Your task to perform on an android device: Do I have any events this weekend? Image 0: 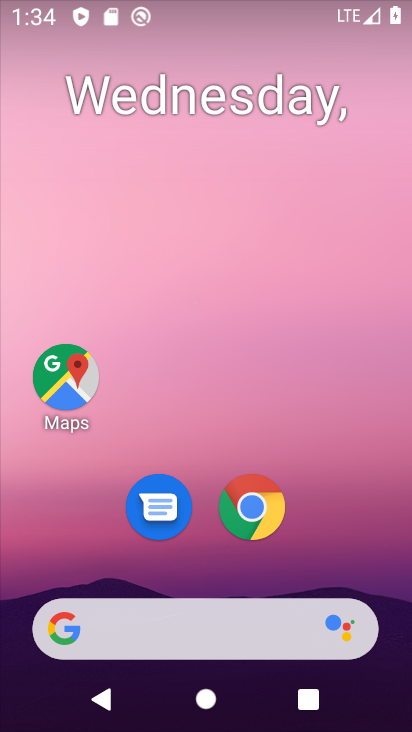
Step 0: drag from (361, 555) to (256, 95)
Your task to perform on an android device: Do I have any events this weekend? Image 1: 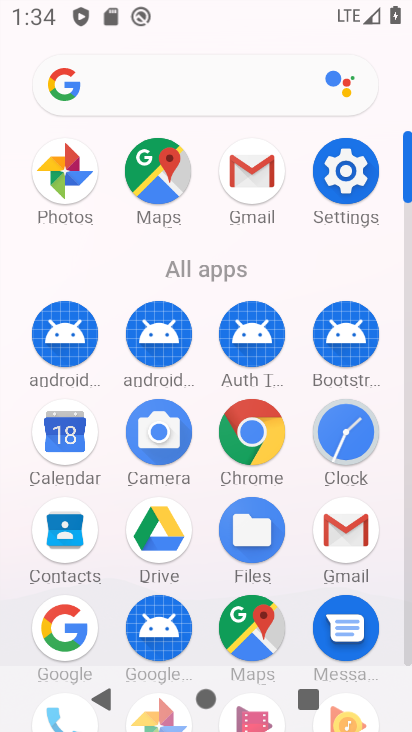
Step 1: click (76, 436)
Your task to perform on an android device: Do I have any events this weekend? Image 2: 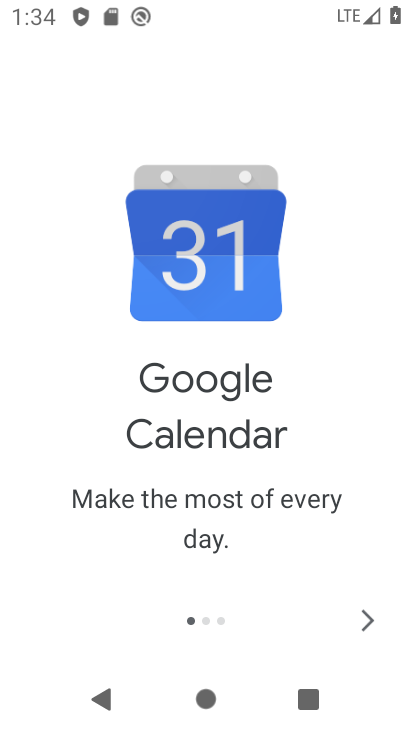
Step 2: click (374, 618)
Your task to perform on an android device: Do I have any events this weekend? Image 3: 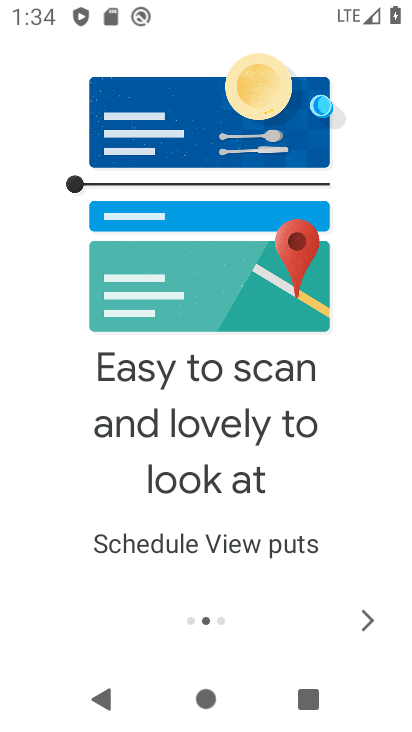
Step 3: click (374, 618)
Your task to perform on an android device: Do I have any events this weekend? Image 4: 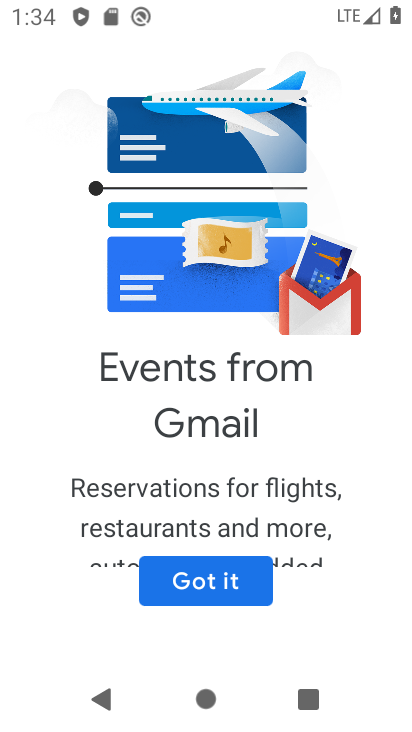
Step 4: click (179, 582)
Your task to perform on an android device: Do I have any events this weekend? Image 5: 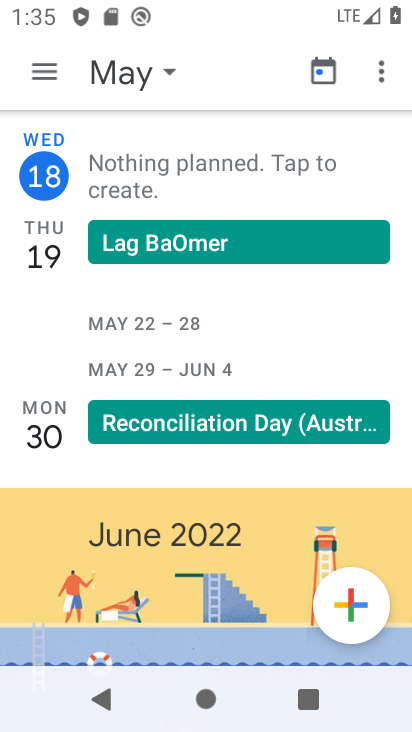
Step 5: click (51, 74)
Your task to perform on an android device: Do I have any events this weekend? Image 6: 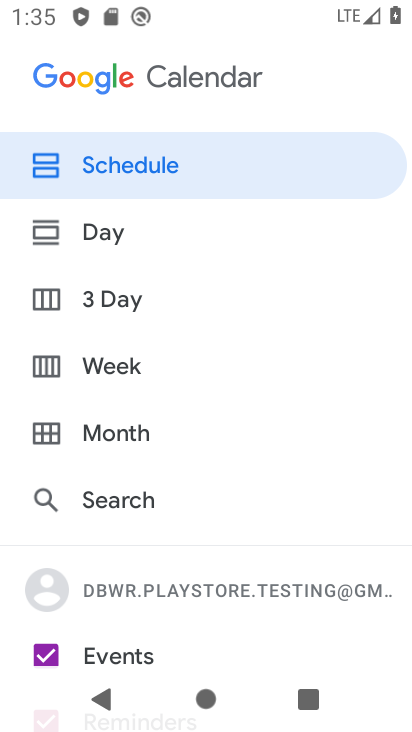
Step 6: drag from (215, 578) to (252, 6)
Your task to perform on an android device: Do I have any events this weekend? Image 7: 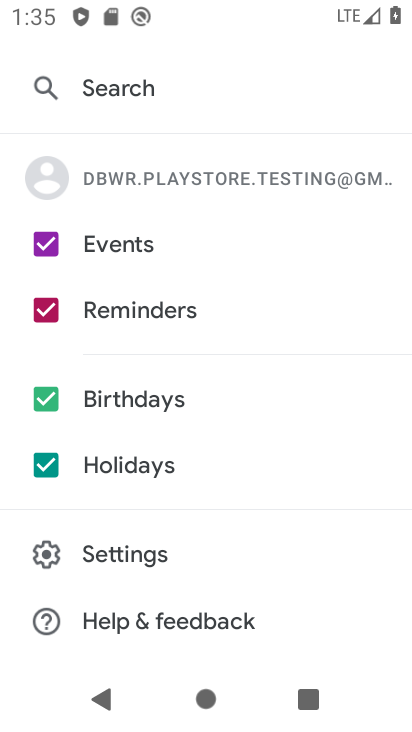
Step 7: click (43, 460)
Your task to perform on an android device: Do I have any events this weekend? Image 8: 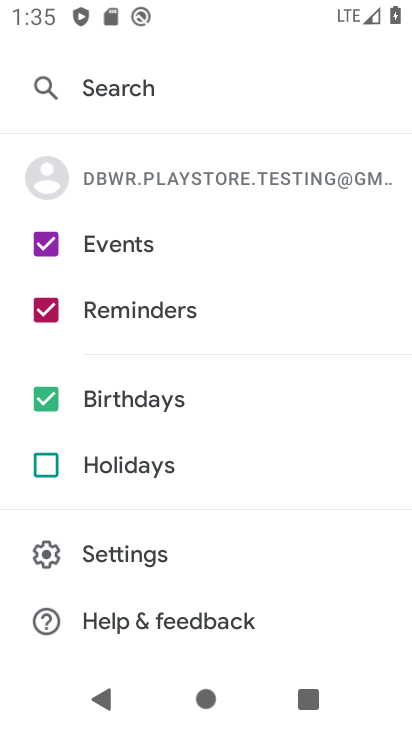
Step 8: click (39, 402)
Your task to perform on an android device: Do I have any events this weekend? Image 9: 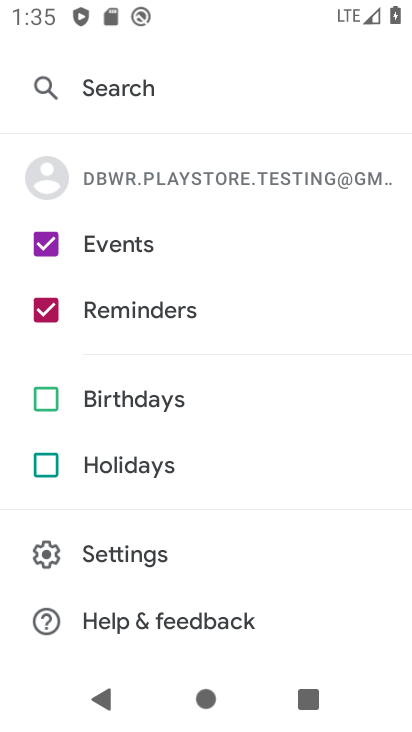
Step 9: click (44, 313)
Your task to perform on an android device: Do I have any events this weekend? Image 10: 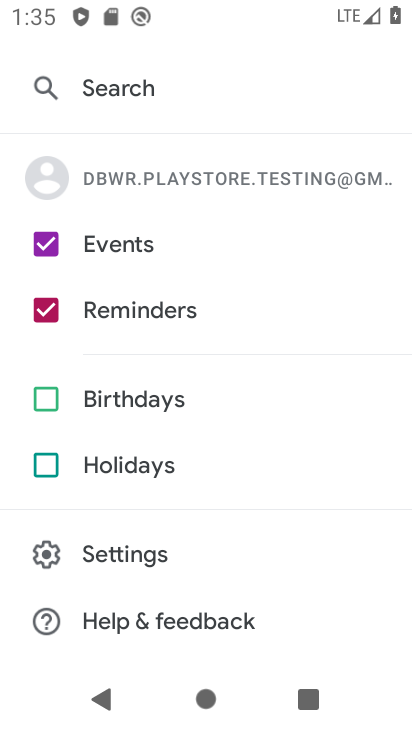
Step 10: drag from (233, 129) to (238, 251)
Your task to perform on an android device: Do I have any events this weekend? Image 11: 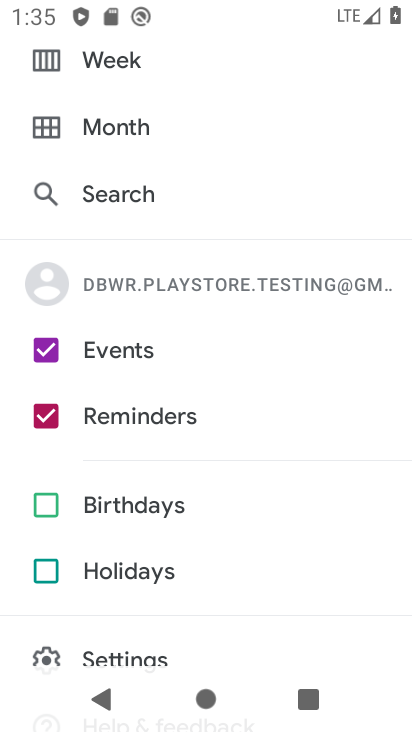
Step 11: click (47, 425)
Your task to perform on an android device: Do I have any events this weekend? Image 12: 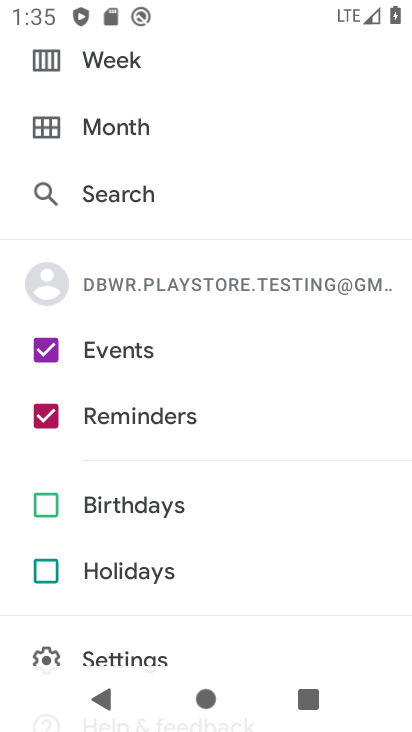
Step 12: click (47, 425)
Your task to perform on an android device: Do I have any events this weekend? Image 13: 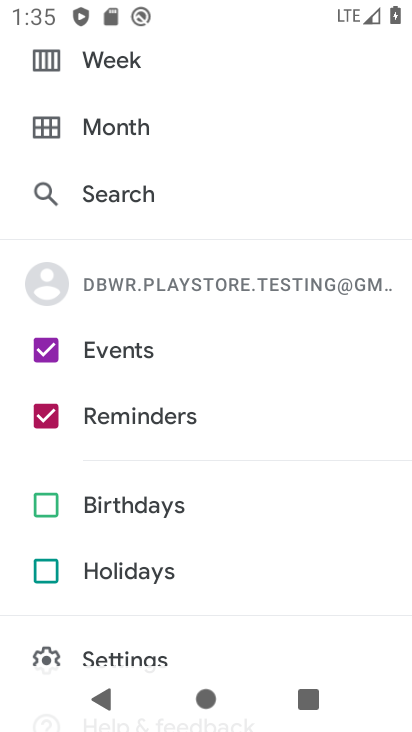
Step 13: click (42, 408)
Your task to perform on an android device: Do I have any events this weekend? Image 14: 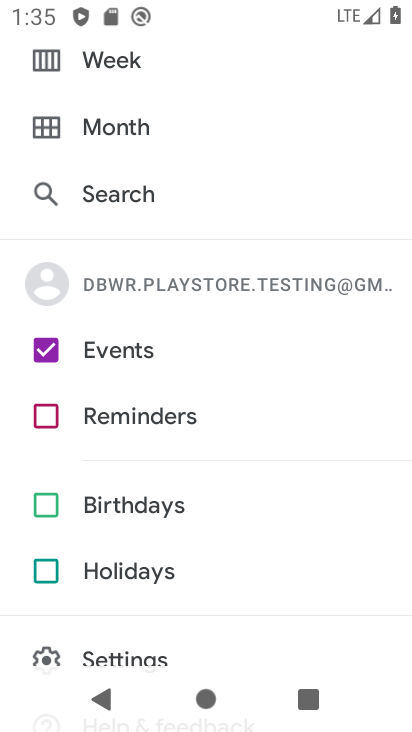
Step 14: drag from (201, 135) to (191, 335)
Your task to perform on an android device: Do I have any events this weekend? Image 15: 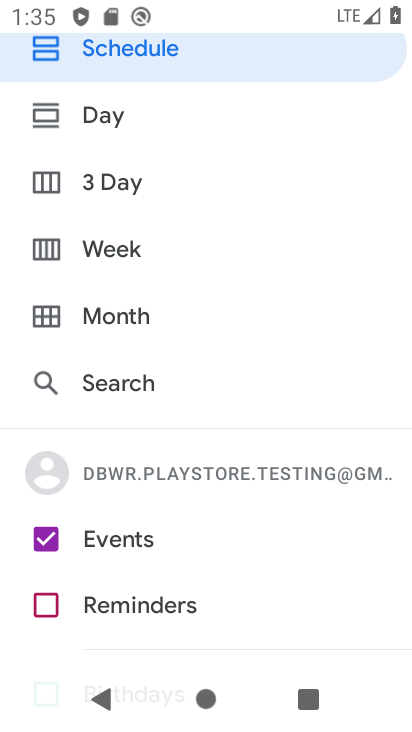
Step 15: click (119, 184)
Your task to perform on an android device: Do I have any events this weekend? Image 16: 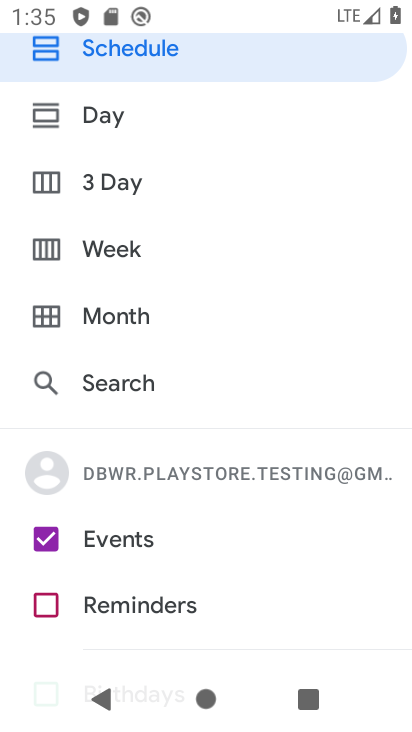
Step 16: click (109, 183)
Your task to perform on an android device: Do I have any events this weekend? Image 17: 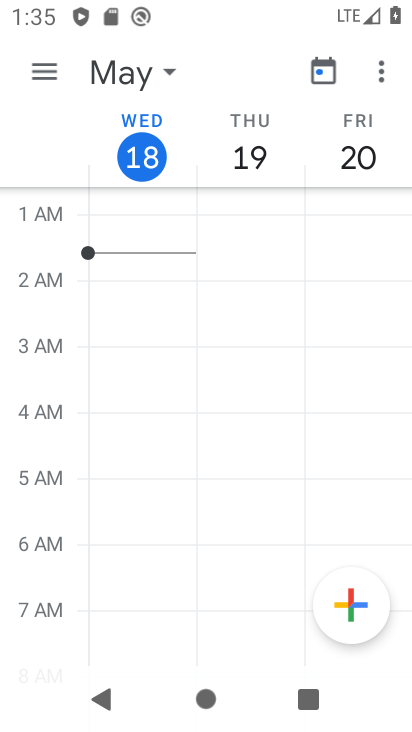
Step 17: drag from (368, 155) to (113, 169)
Your task to perform on an android device: Do I have any events this weekend? Image 18: 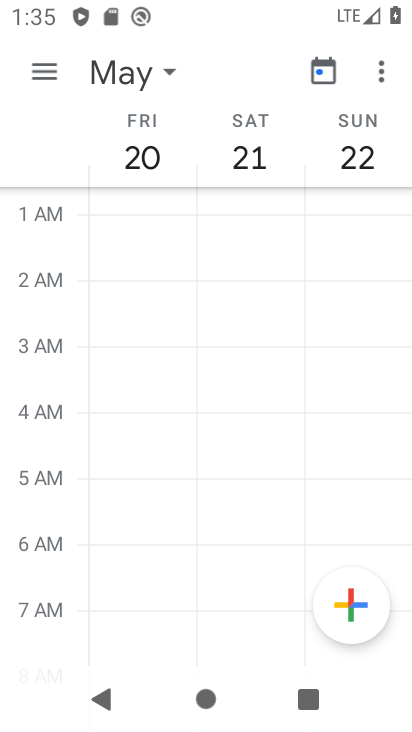
Step 18: click (236, 147)
Your task to perform on an android device: Do I have any events this weekend? Image 19: 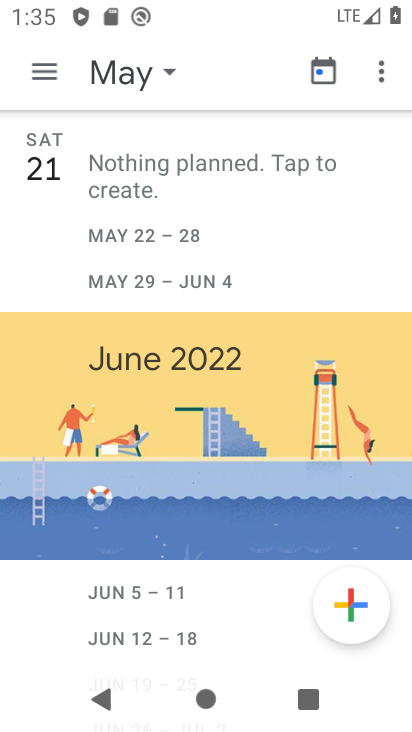
Step 19: task complete